Your task to perform on an android device: set default search engine in the chrome app Image 0: 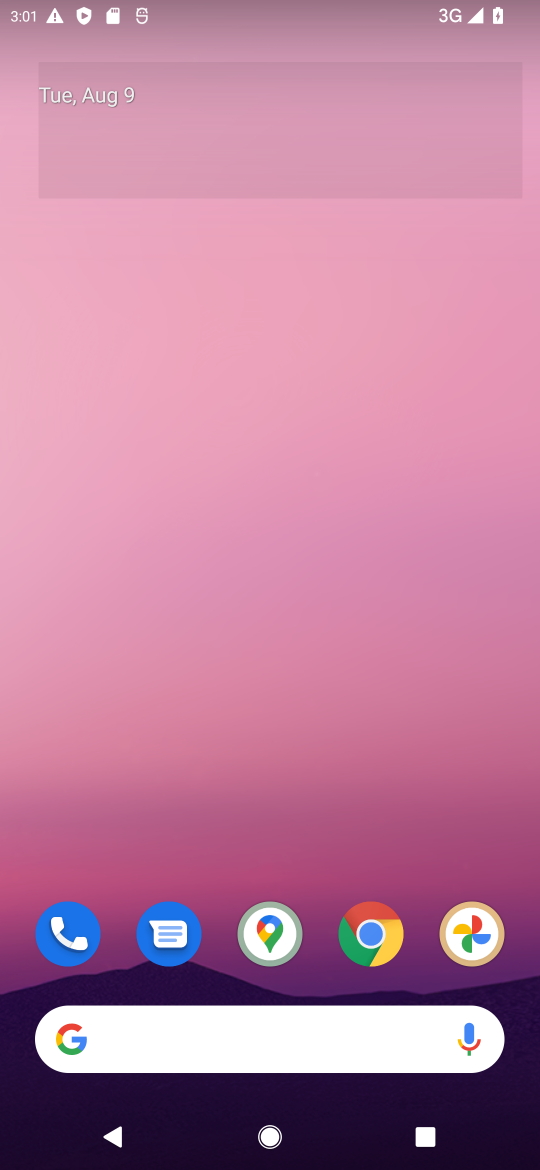
Step 0: click (387, 945)
Your task to perform on an android device: set default search engine in the chrome app Image 1: 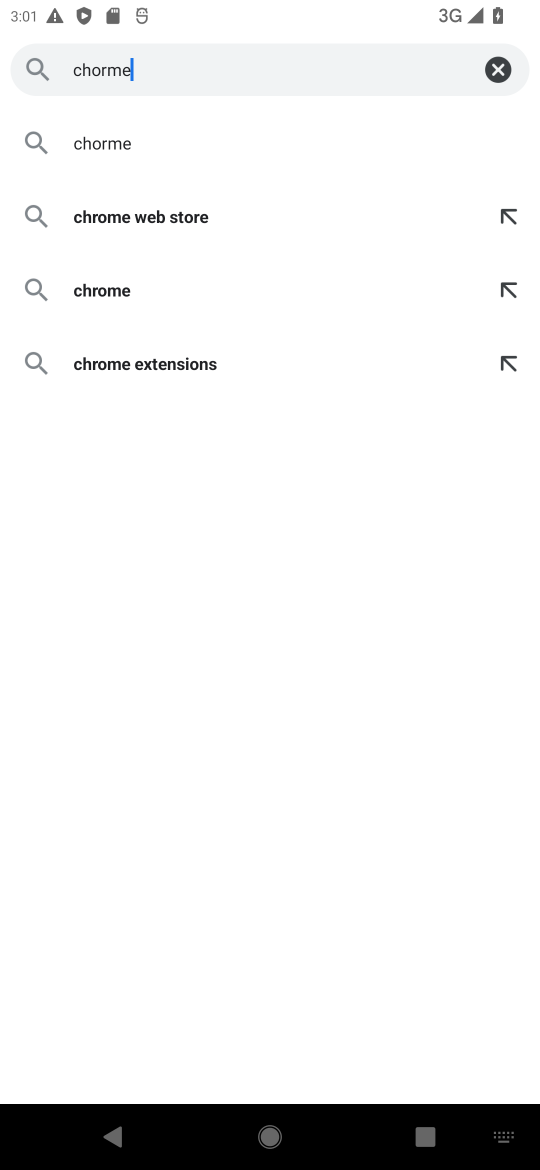
Step 1: task complete